Your task to perform on an android device: Open notification settings Image 0: 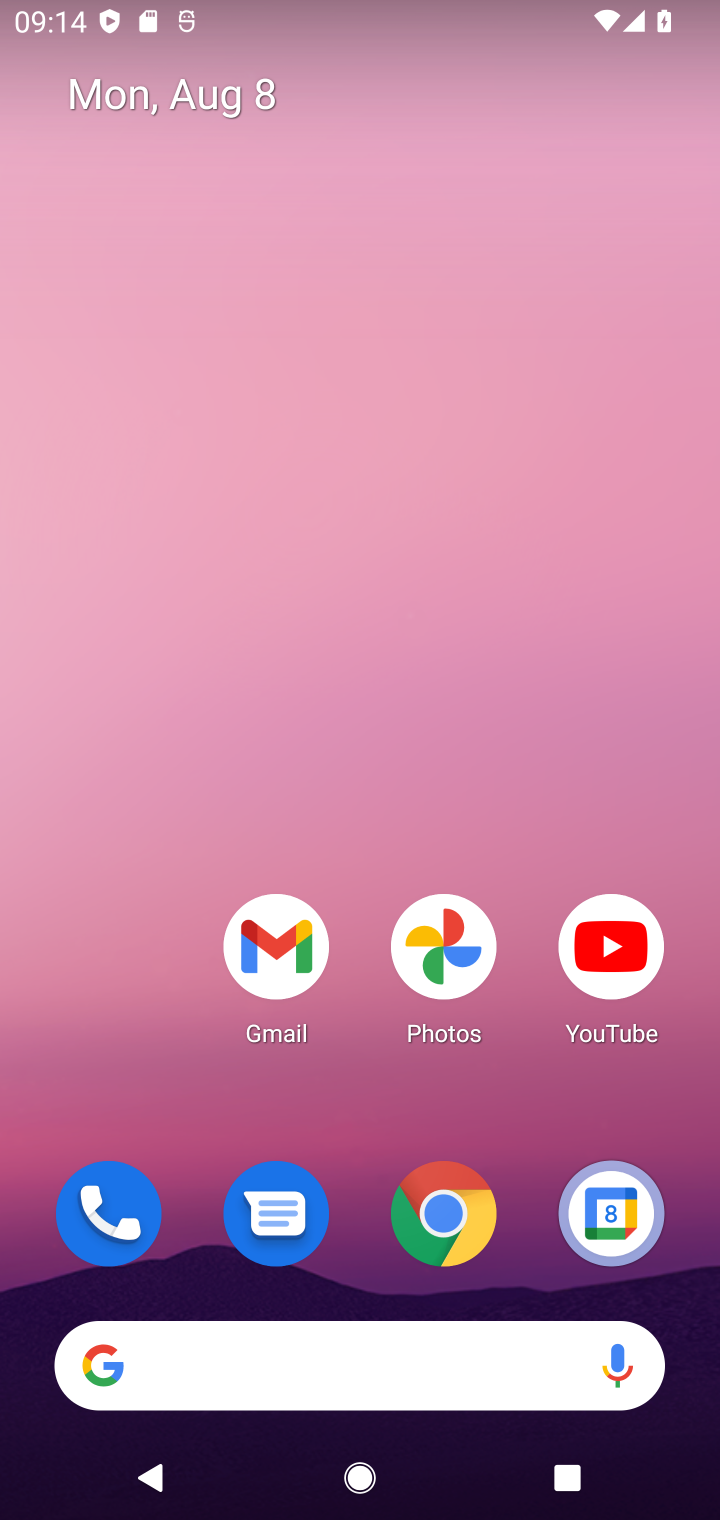
Step 0: drag from (377, 647) to (388, 104)
Your task to perform on an android device: Open notification settings Image 1: 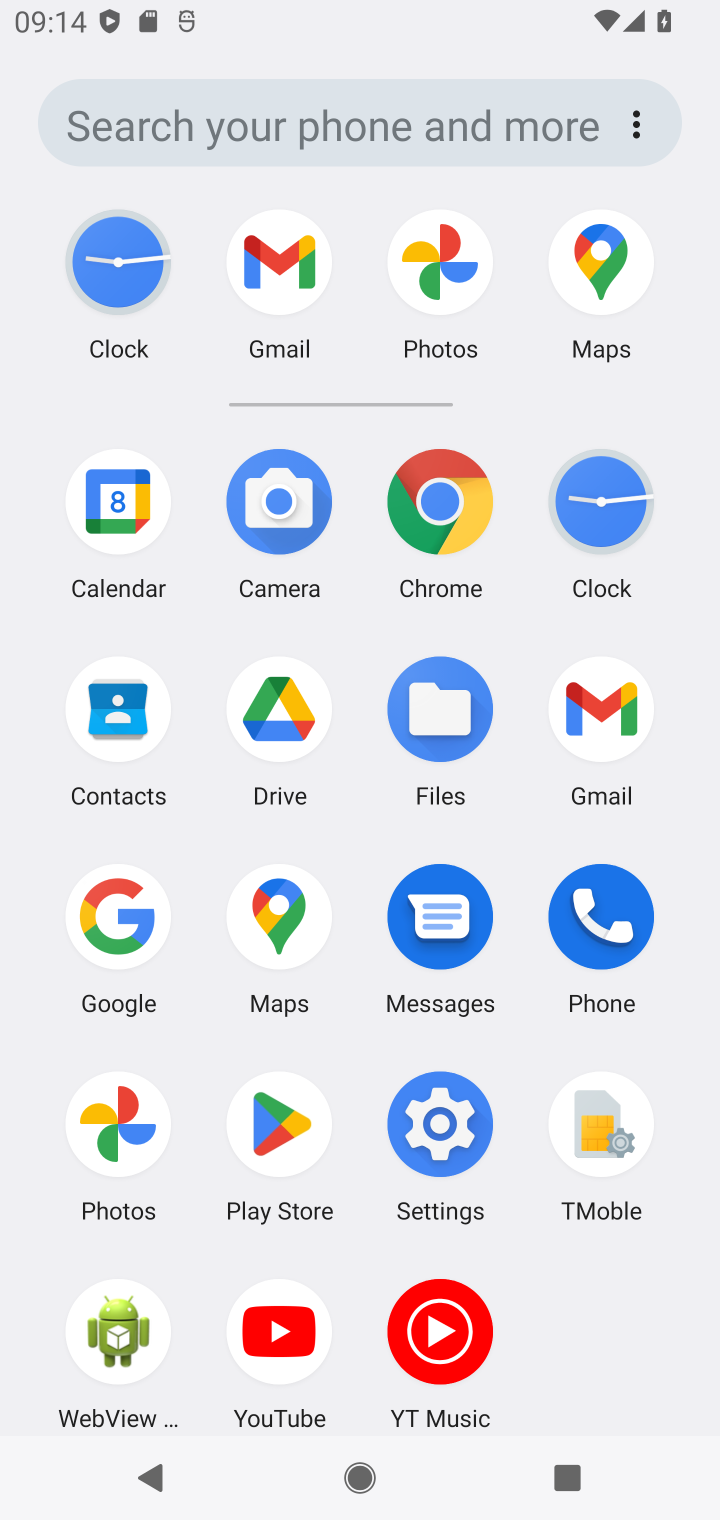
Step 1: click (432, 1161)
Your task to perform on an android device: Open notification settings Image 2: 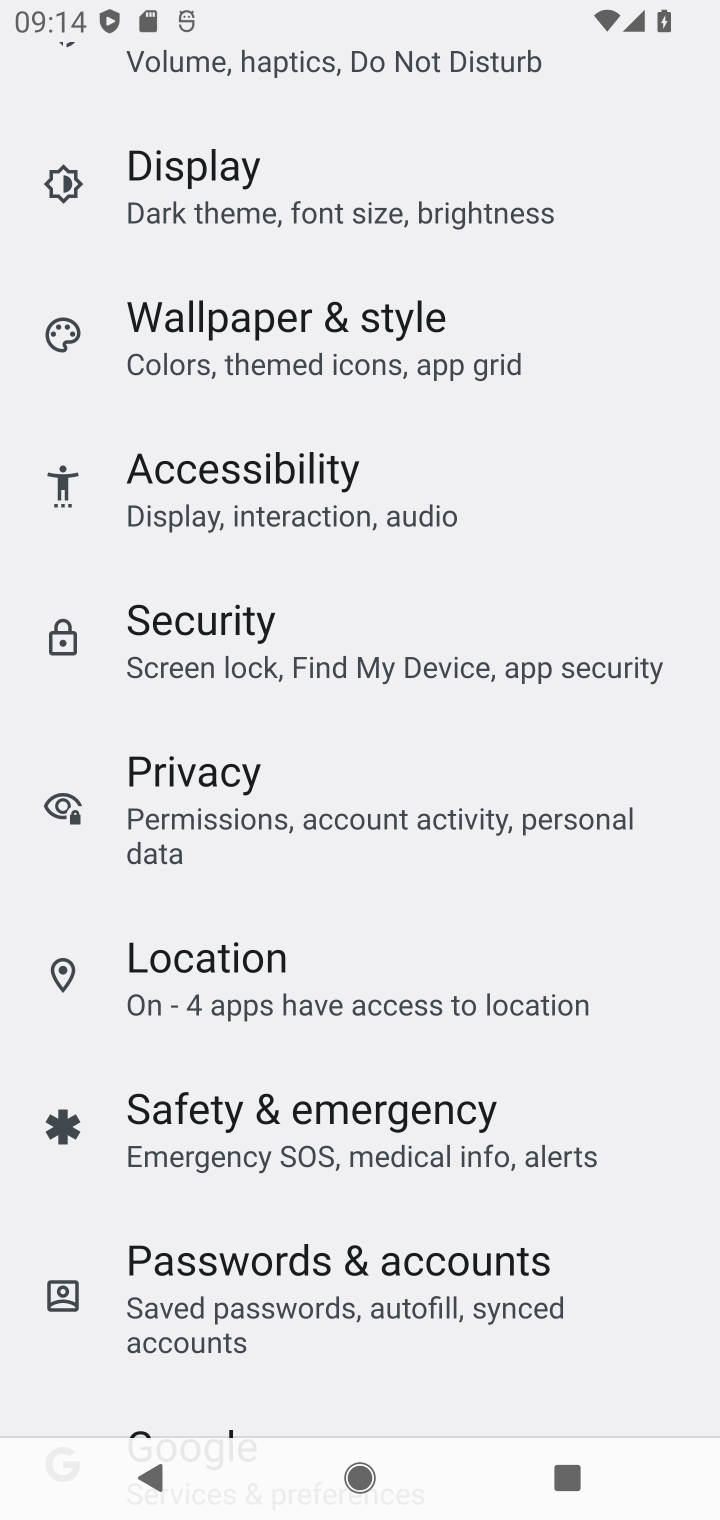
Step 2: drag from (431, 435) to (466, 1202)
Your task to perform on an android device: Open notification settings Image 3: 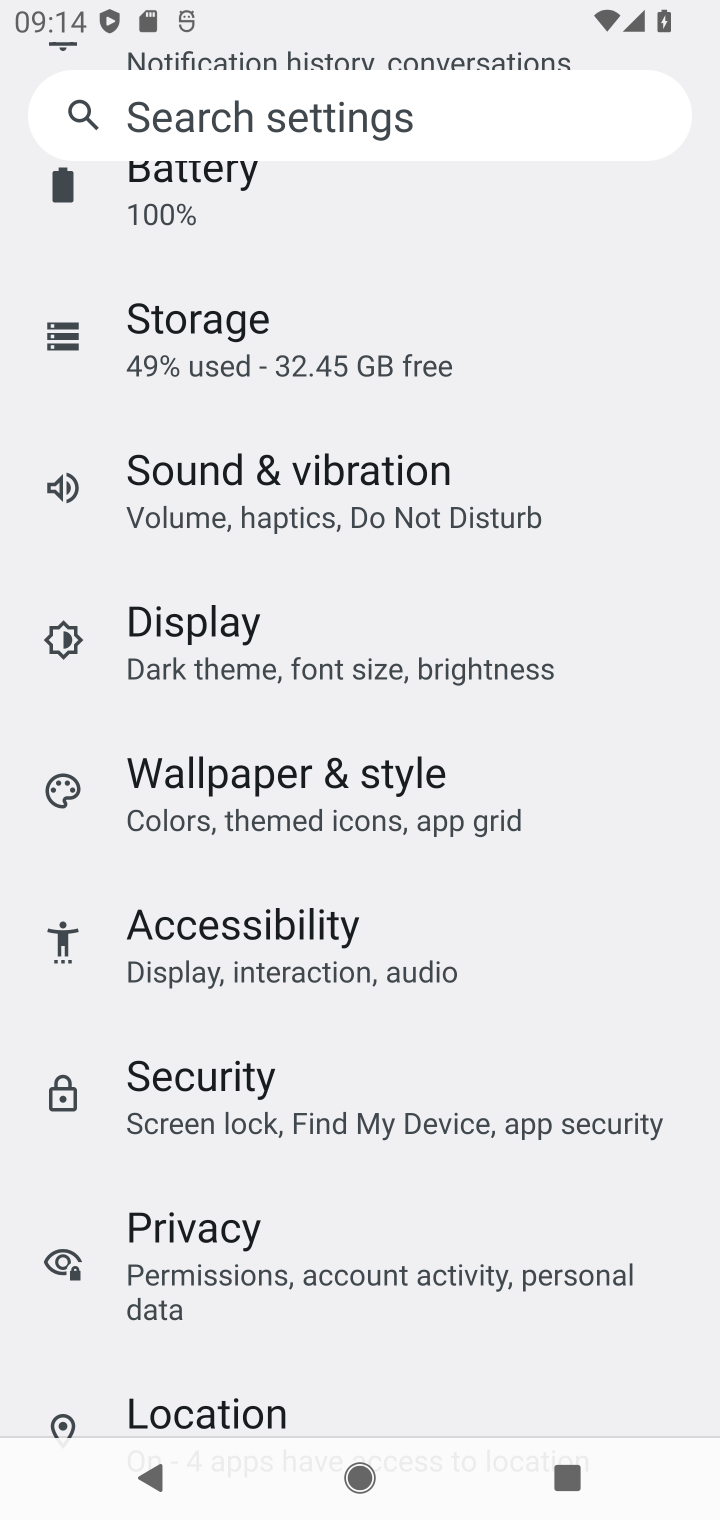
Step 3: drag from (381, 287) to (472, 946)
Your task to perform on an android device: Open notification settings Image 4: 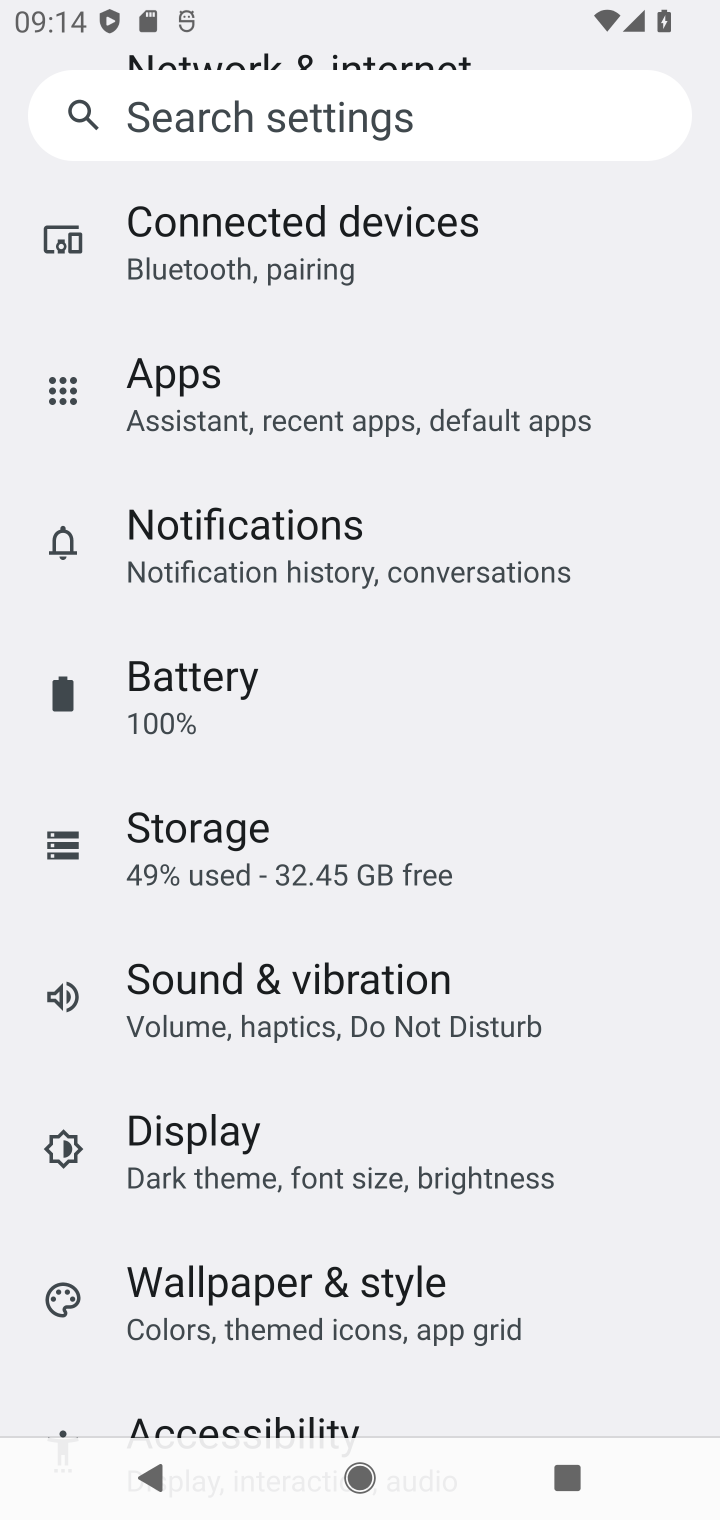
Step 4: click (427, 546)
Your task to perform on an android device: Open notification settings Image 5: 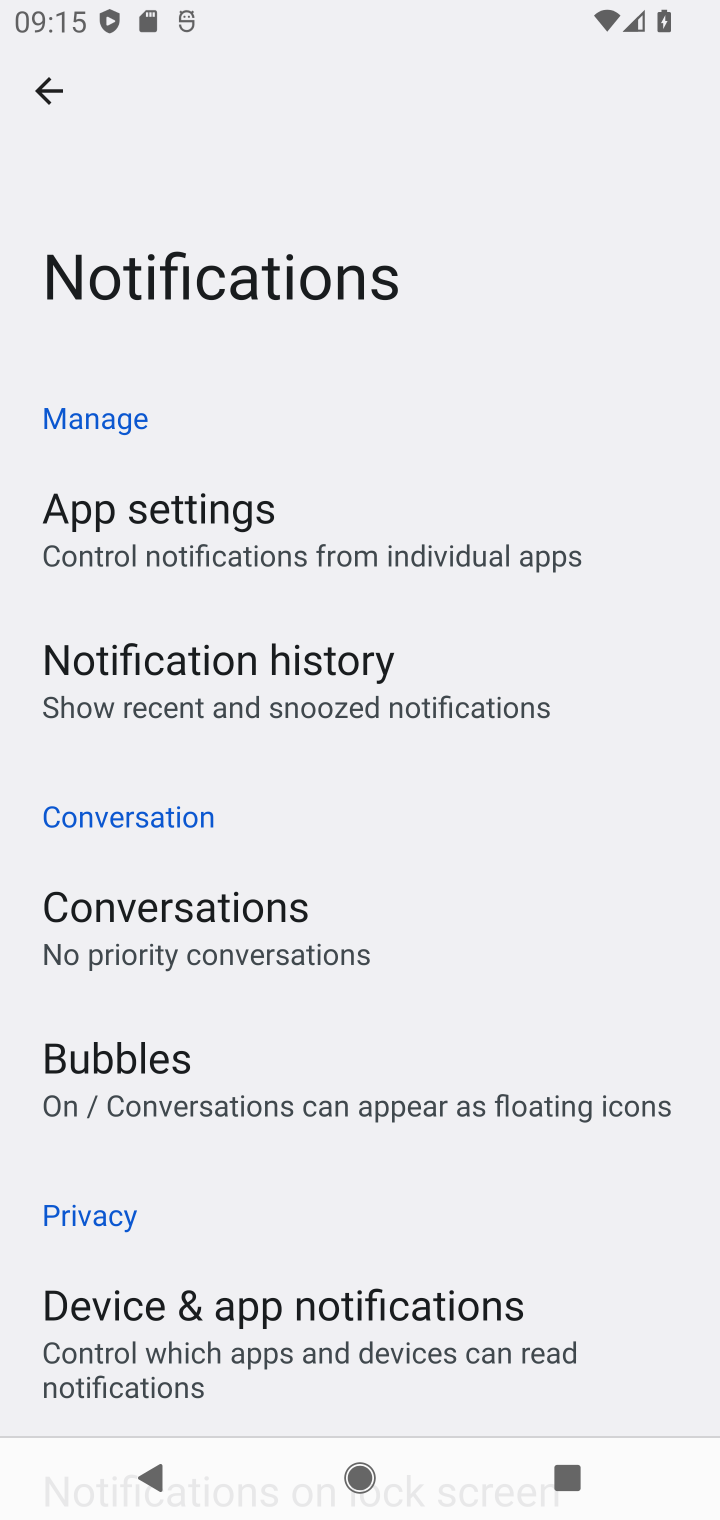
Step 5: task complete